Your task to perform on an android device: Go to Maps Image 0: 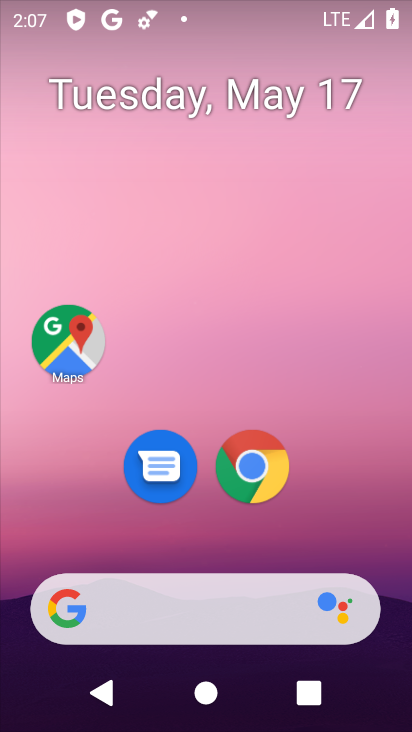
Step 0: click (66, 341)
Your task to perform on an android device: Go to Maps Image 1: 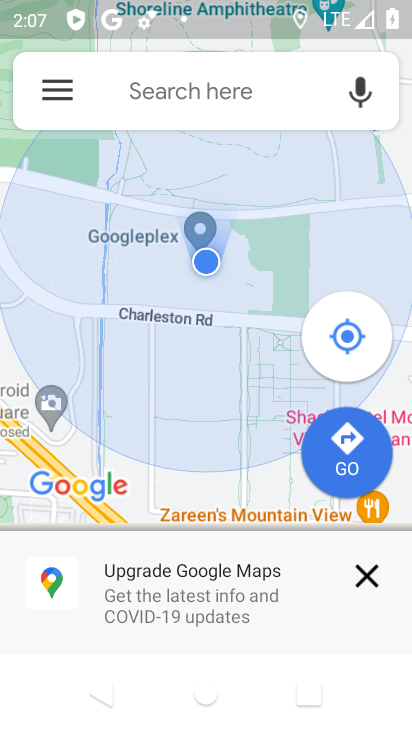
Step 1: task complete